Your task to perform on an android device: change notifications settings Image 0: 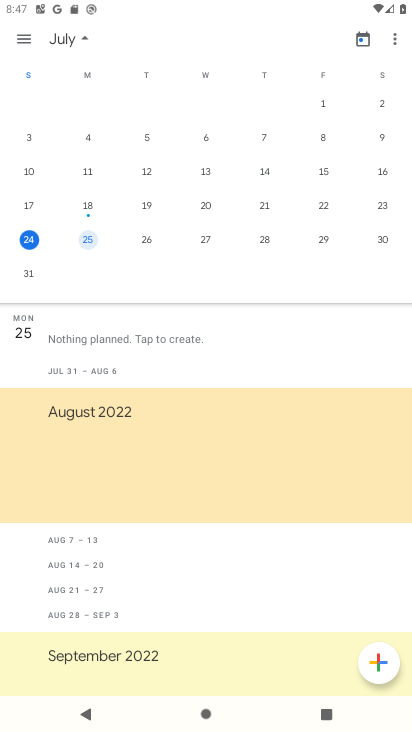
Step 0: drag from (322, 16) to (308, 618)
Your task to perform on an android device: change notifications settings Image 1: 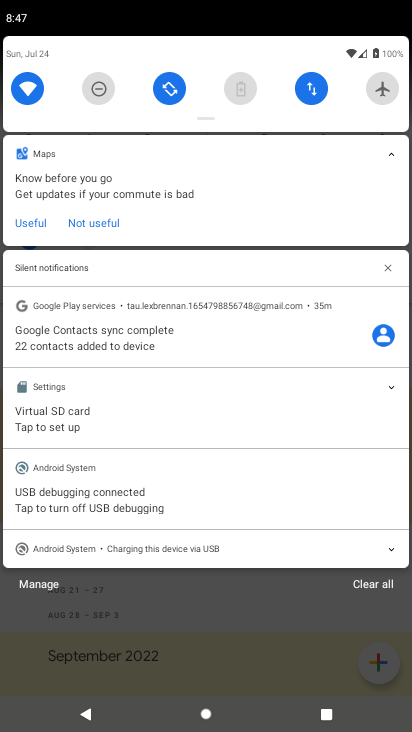
Step 1: drag from (223, 56) to (226, 634)
Your task to perform on an android device: change notifications settings Image 2: 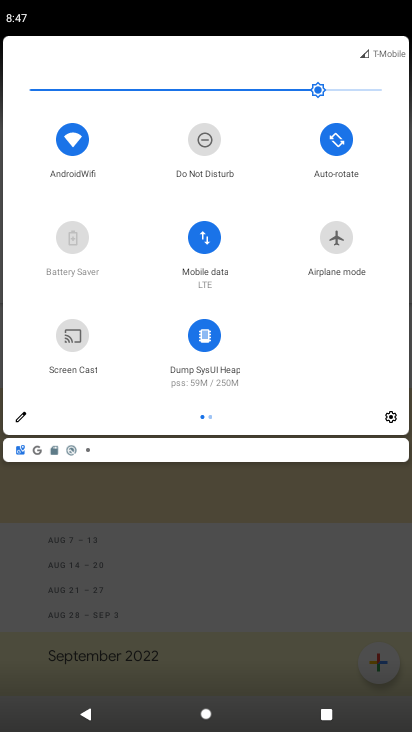
Step 2: click (393, 412)
Your task to perform on an android device: change notifications settings Image 3: 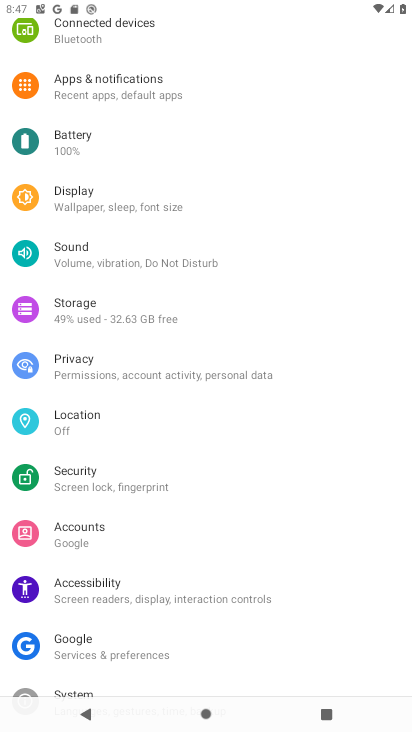
Step 3: click (141, 82)
Your task to perform on an android device: change notifications settings Image 4: 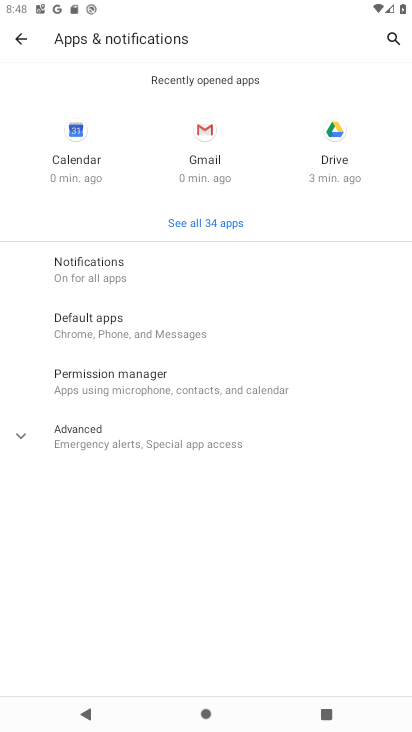
Step 4: click (168, 275)
Your task to perform on an android device: change notifications settings Image 5: 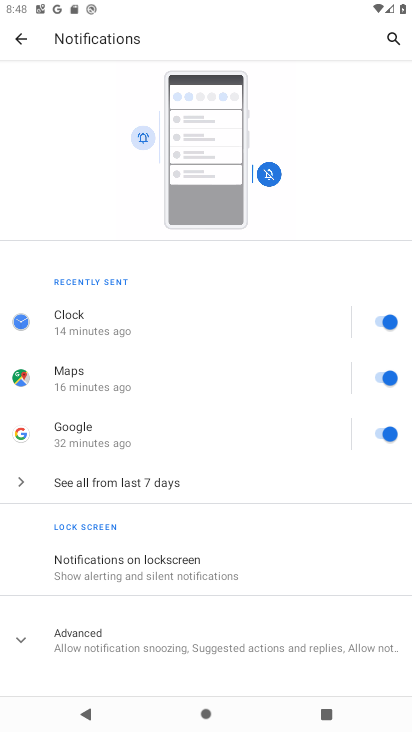
Step 5: click (173, 643)
Your task to perform on an android device: change notifications settings Image 6: 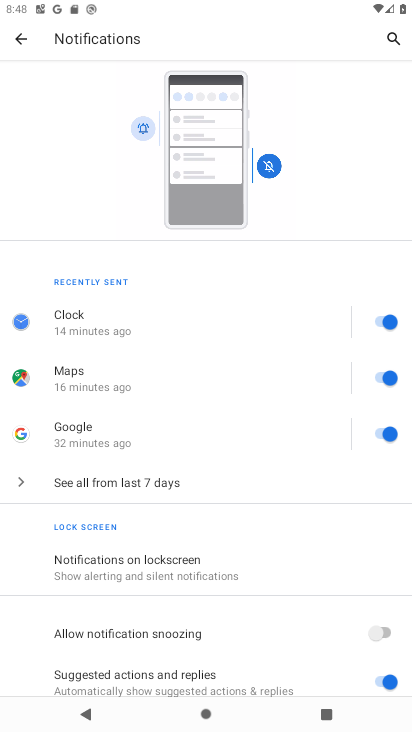
Step 6: click (390, 635)
Your task to perform on an android device: change notifications settings Image 7: 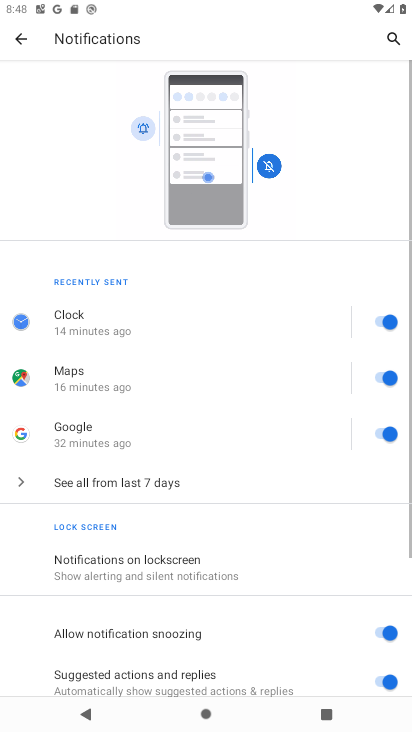
Step 7: click (390, 682)
Your task to perform on an android device: change notifications settings Image 8: 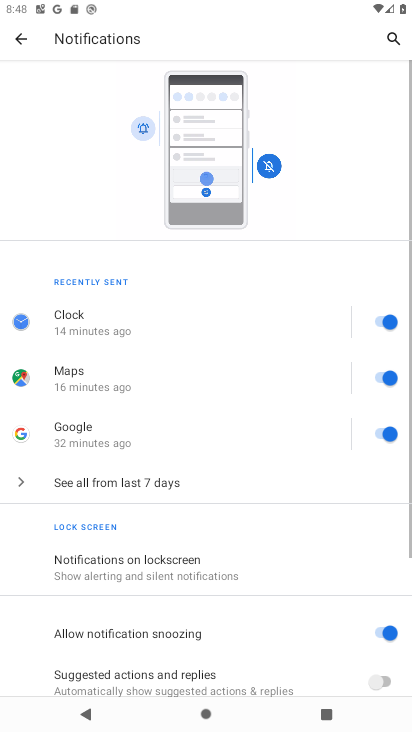
Step 8: task complete